Your task to perform on an android device: Open calendar and show me the first week of next month Image 0: 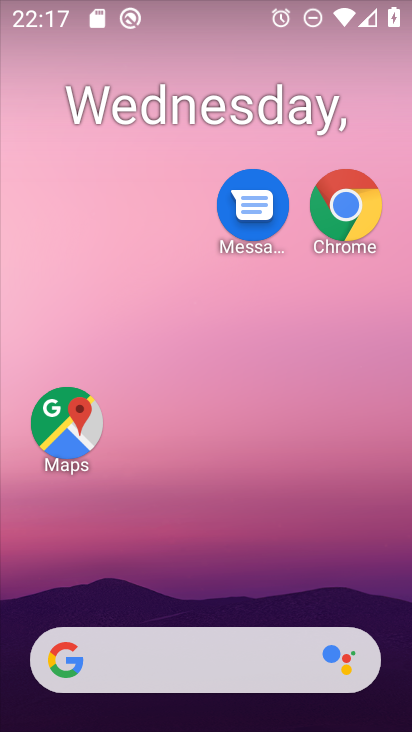
Step 0: drag from (162, 493) to (174, 267)
Your task to perform on an android device: Open calendar and show me the first week of next month Image 1: 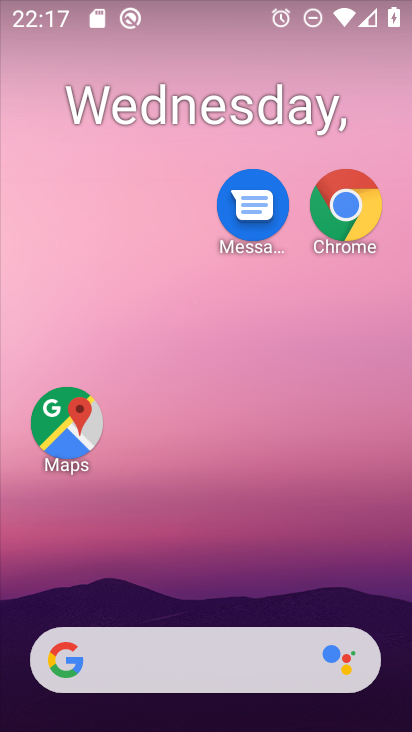
Step 1: drag from (181, 487) to (214, 168)
Your task to perform on an android device: Open calendar and show me the first week of next month Image 2: 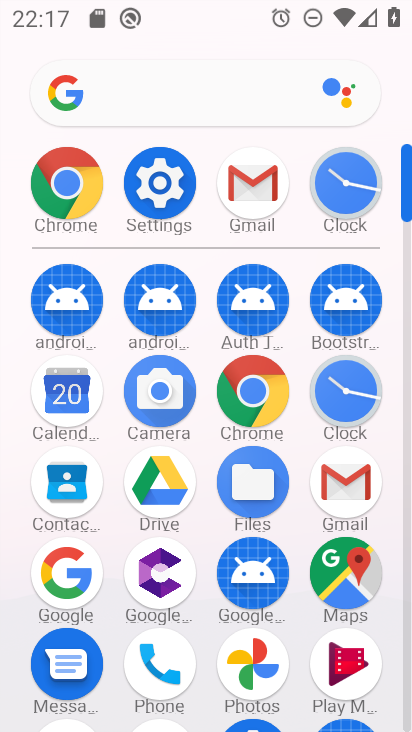
Step 2: click (63, 396)
Your task to perform on an android device: Open calendar and show me the first week of next month Image 3: 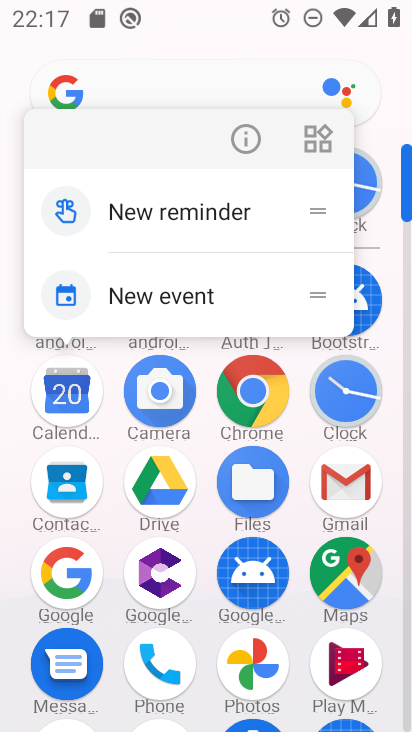
Step 3: click (251, 141)
Your task to perform on an android device: Open calendar and show me the first week of next month Image 4: 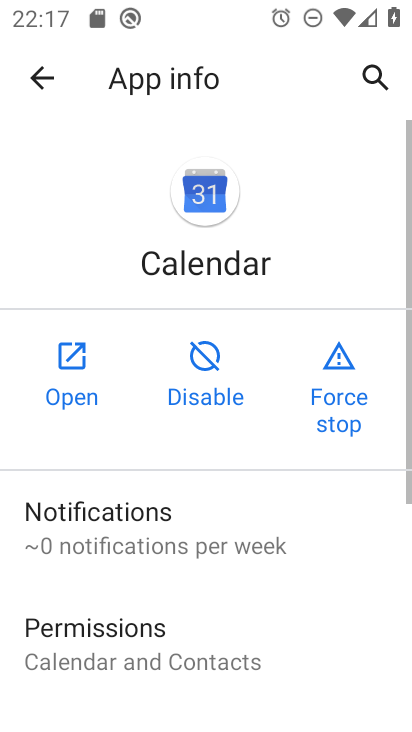
Step 4: click (76, 371)
Your task to perform on an android device: Open calendar and show me the first week of next month Image 5: 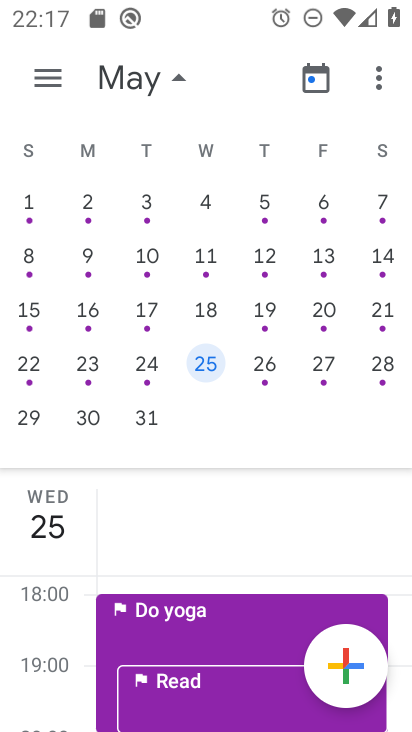
Step 5: drag from (192, 547) to (196, 311)
Your task to perform on an android device: Open calendar and show me the first week of next month Image 6: 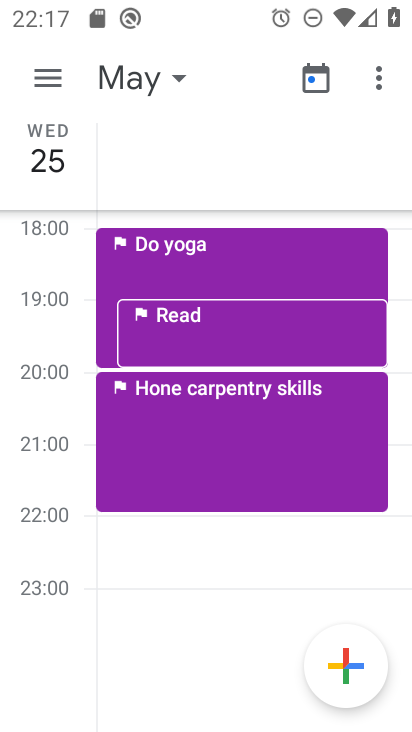
Step 6: drag from (203, 241) to (294, 667)
Your task to perform on an android device: Open calendar and show me the first week of next month Image 7: 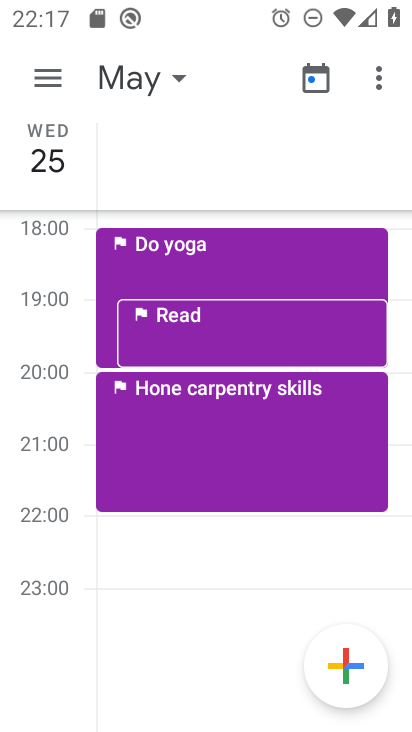
Step 7: drag from (292, 197) to (336, 701)
Your task to perform on an android device: Open calendar and show me the first week of next month Image 8: 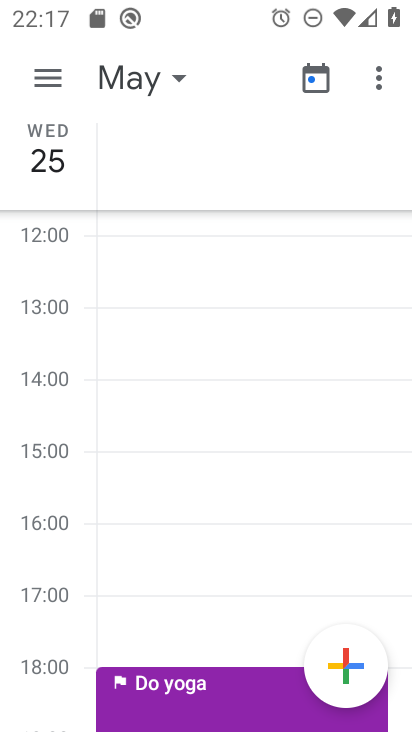
Step 8: click (145, 85)
Your task to perform on an android device: Open calendar and show me the first week of next month Image 9: 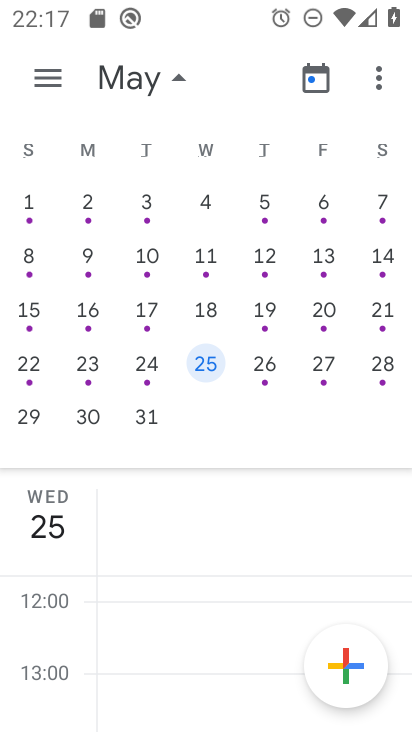
Step 9: click (263, 201)
Your task to perform on an android device: Open calendar and show me the first week of next month Image 10: 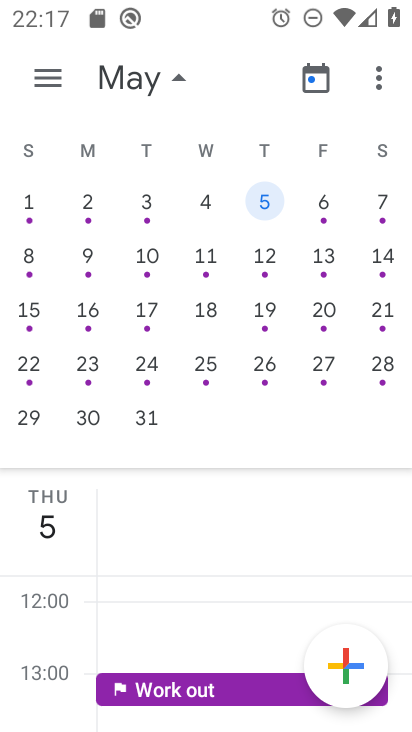
Step 10: task complete